Your task to perform on an android device: open the mobile data screen to see how much data has been used Image 0: 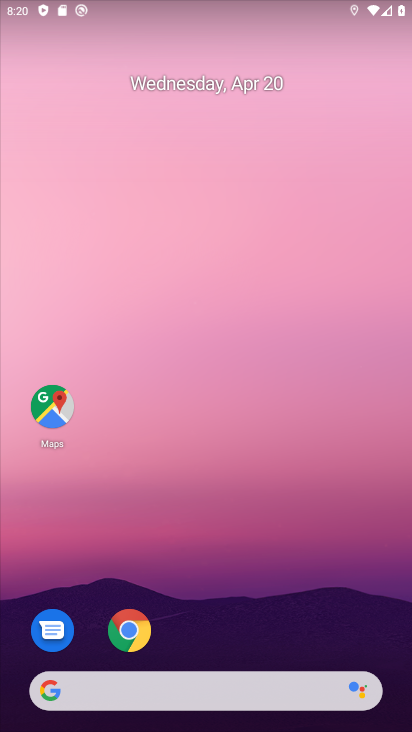
Step 0: drag from (222, 512) to (309, 135)
Your task to perform on an android device: open the mobile data screen to see how much data has been used Image 1: 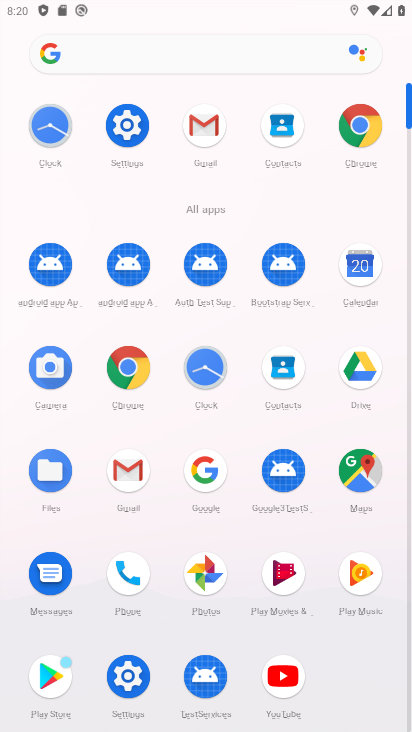
Step 1: click (125, 144)
Your task to perform on an android device: open the mobile data screen to see how much data has been used Image 2: 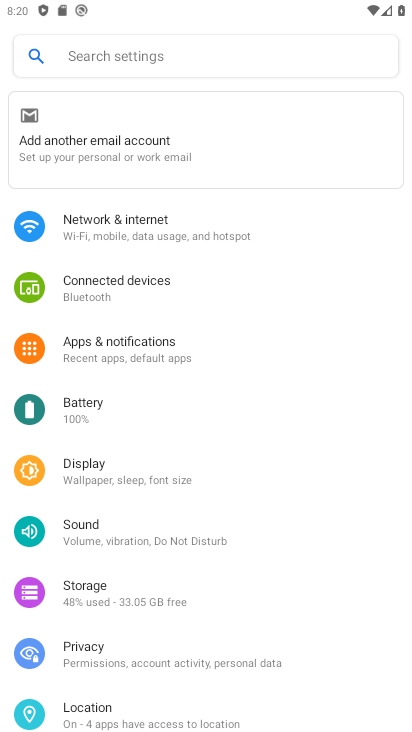
Step 2: click (129, 236)
Your task to perform on an android device: open the mobile data screen to see how much data has been used Image 3: 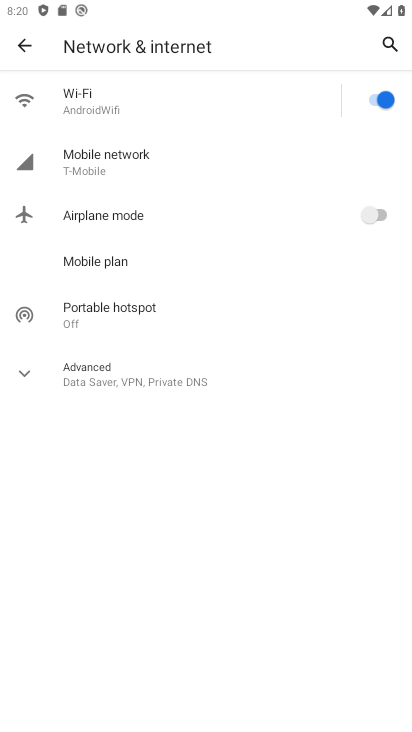
Step 3: click (123, 157)
Your task to perform on an android device: open the mobile data screen to see how much data has been used Image 4: 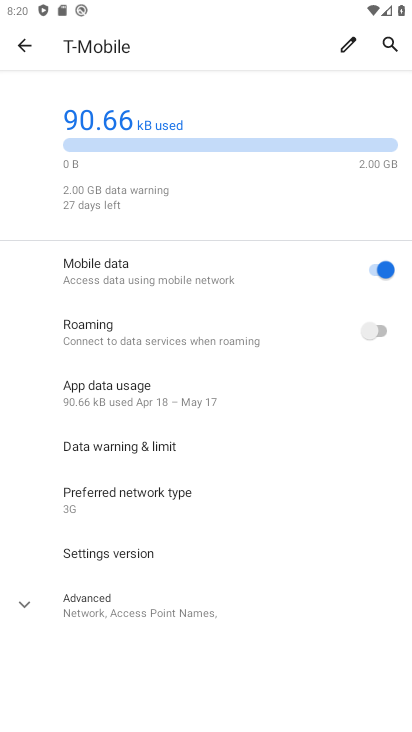
Step 4: click (138, 394)
Your task to perform on an android device: open the mobile data screen to see how much data has been used Image 5: 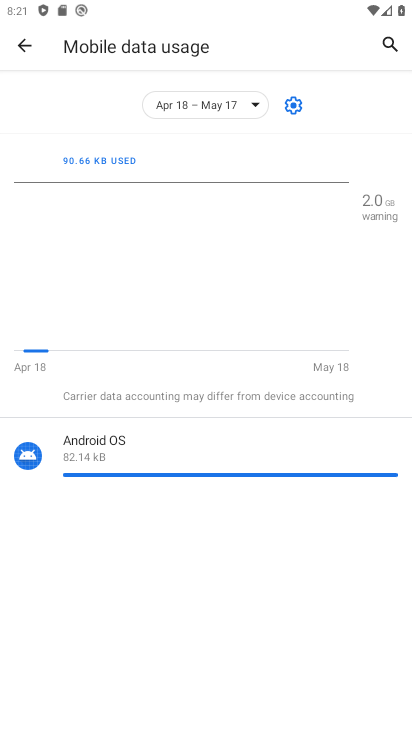
Step 5: task complete